Your task to perform on an android device: search for starred emails in the gmail app Image 0: 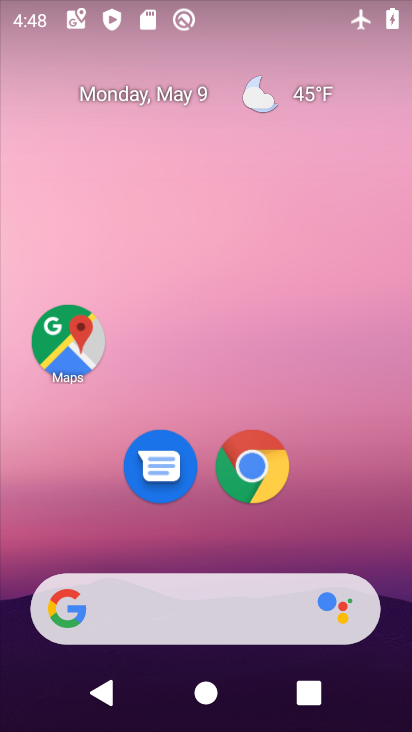
Step 0: drag from (385, 560) to (296, 25)
Your task to perform on an android device: search for starred emails in the gmail app Image 1: 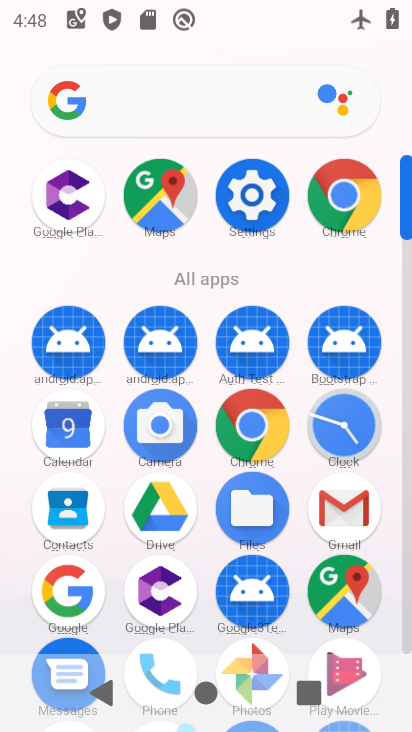
Step 1: drag from (0, 628) to (17, 207)
Your task to perform on an android device: search for starred emails in the gmail app Image 2: 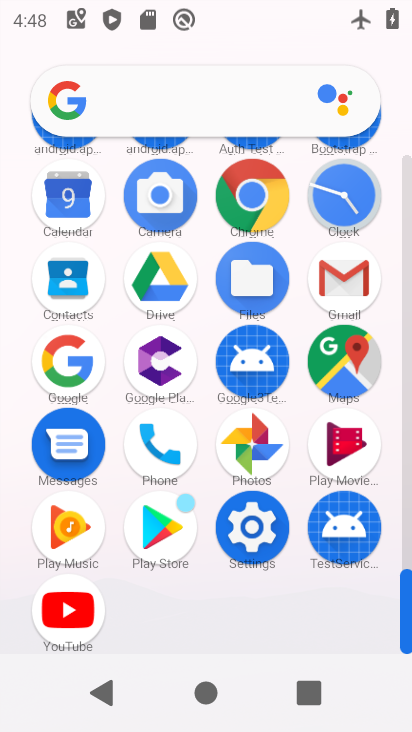
Step 2: click (348, 270)
Your task to perform on an android device: search for starred emails in the gmail app Image 3: 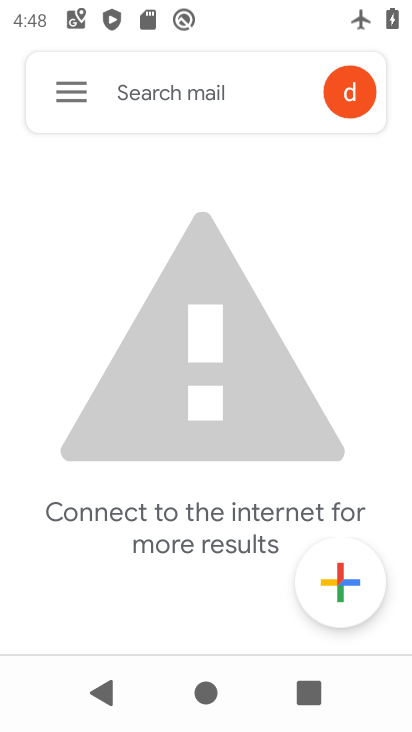
Step 3: click (54, 81)
Your task to perform on an android device: search for starred emails in the gmail app Image 4: 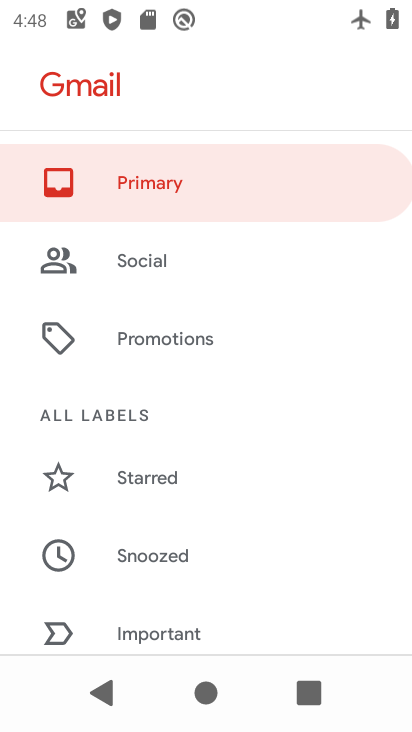
Step 4: click (190, 478)
Your task to perform on an android device: search for starred emails in the gmail app Image 5: 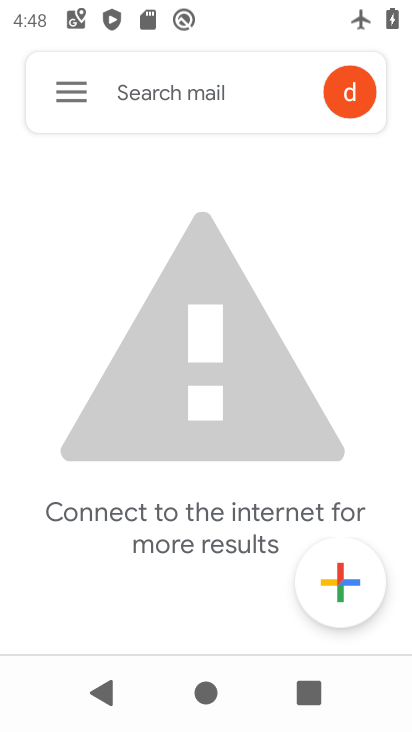
Step 5: task complete